Your task to perform on an android device: change alarm snooze length Image 0: 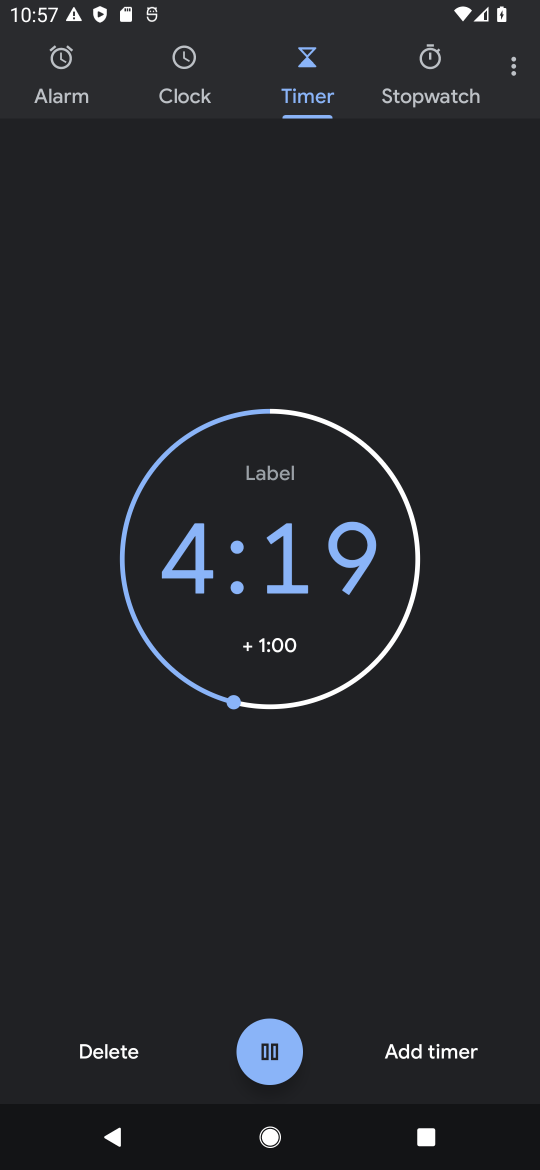
Step 0: press home button
Your task to perform on an android device: change alarm snooze length Image 1: 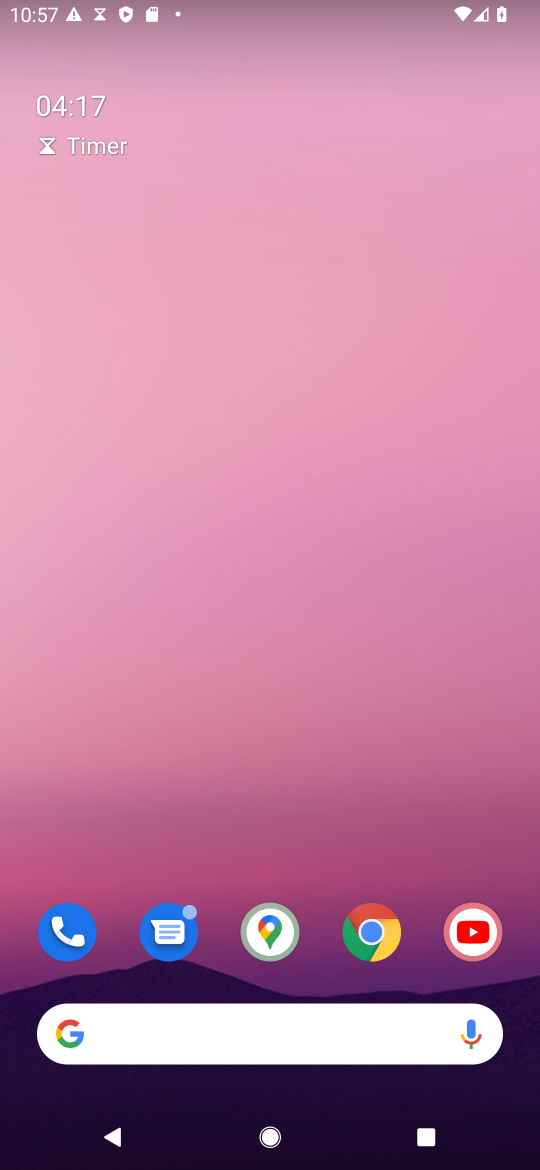
Step 1: drag from (254, 996) to (332, 7)
Your task to perform on an android device: change alarm snooze length Image 2: 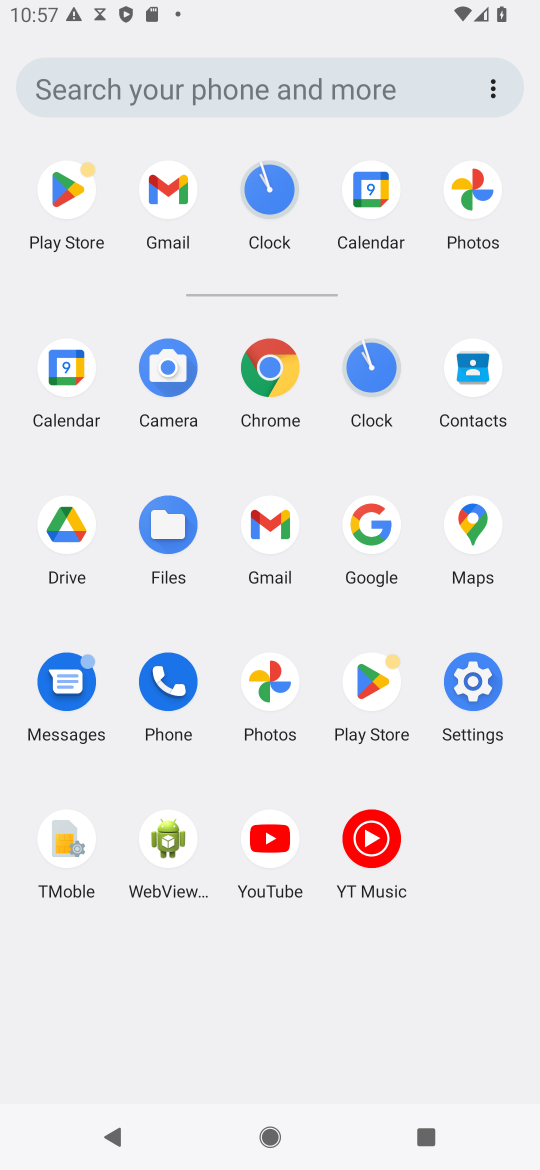
Step 2: click (366, 373)
Your task to perform on an android device: change alarm snooze length Image 3: 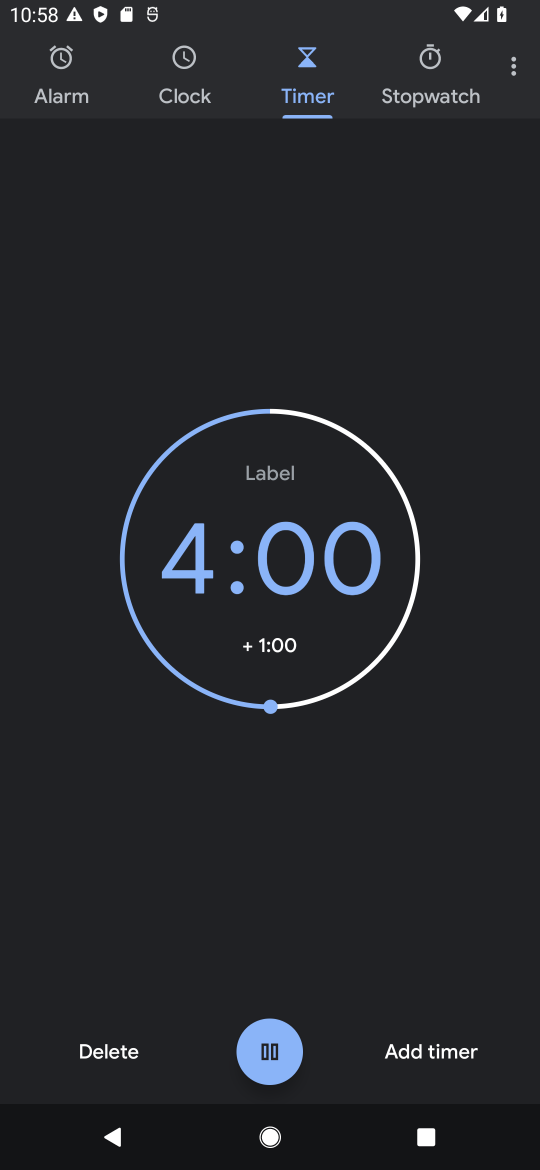
Step 3: click (505, 77)
Your task to perform on an android device: change alarm snooze length Image 4: 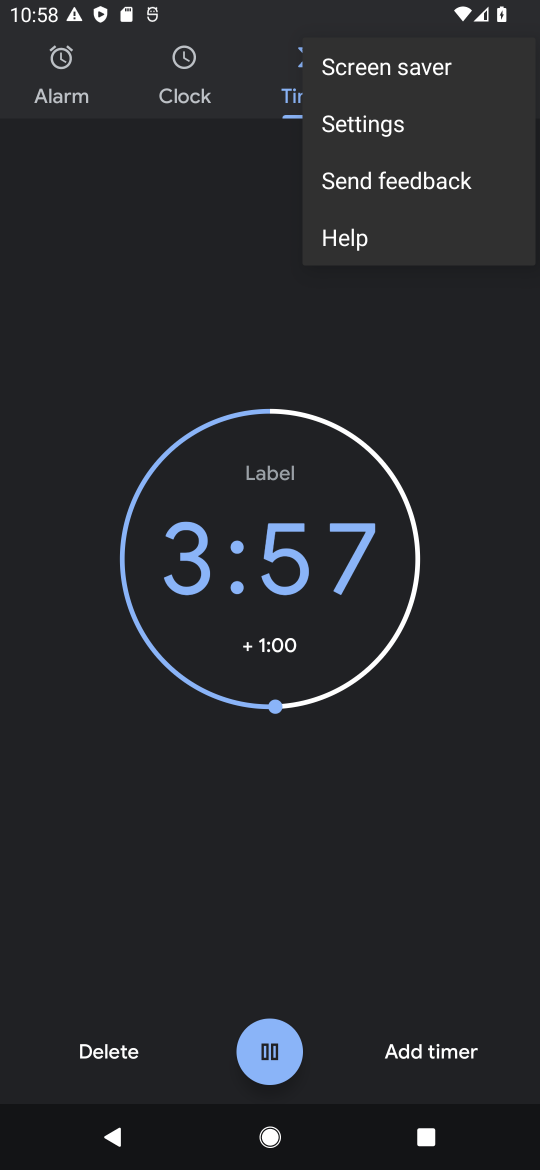
Step 4: click (352, 124)
Your task to perform on an android device: change alarm snooze length Image 5: 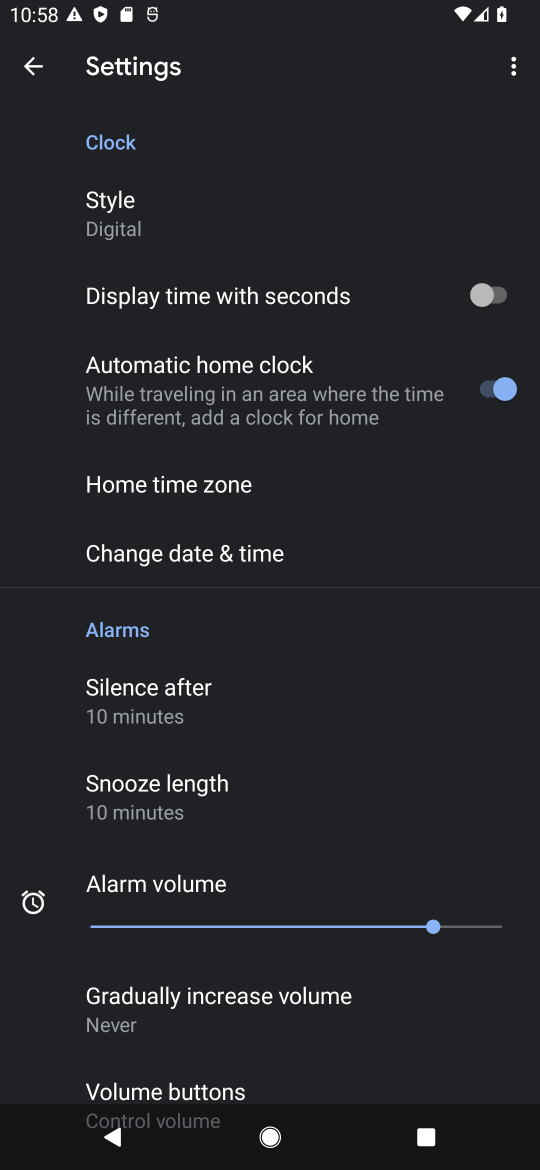
Step 5: drag from (211, 706) to (216, 349)
Your task to perform on an android device: change alarm snooze length Image 6: 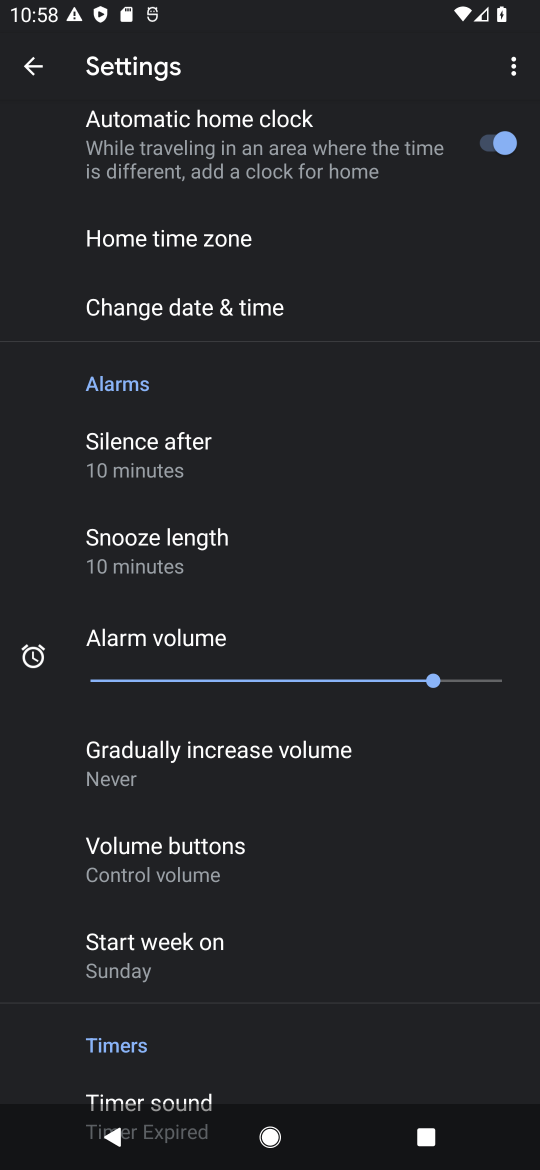
Step 6: drag from (201, 955) to (210, 780)
Your task to perform on an android device: change alarm snooze length Image 7: 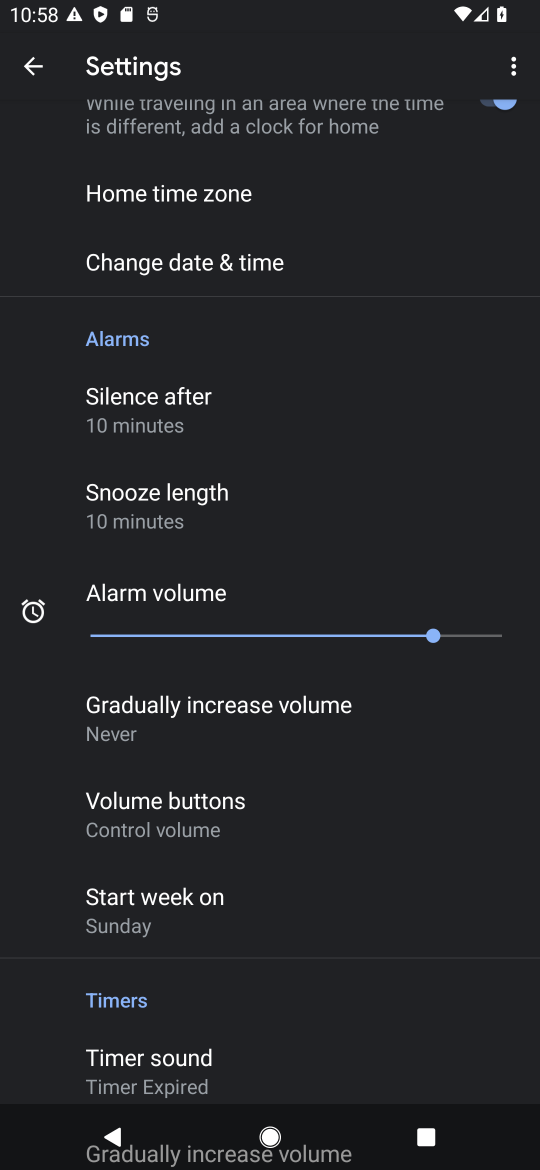
Step 7: click (154, 527)
Your task to perform on an android device: change alarm snooze length Image 8: 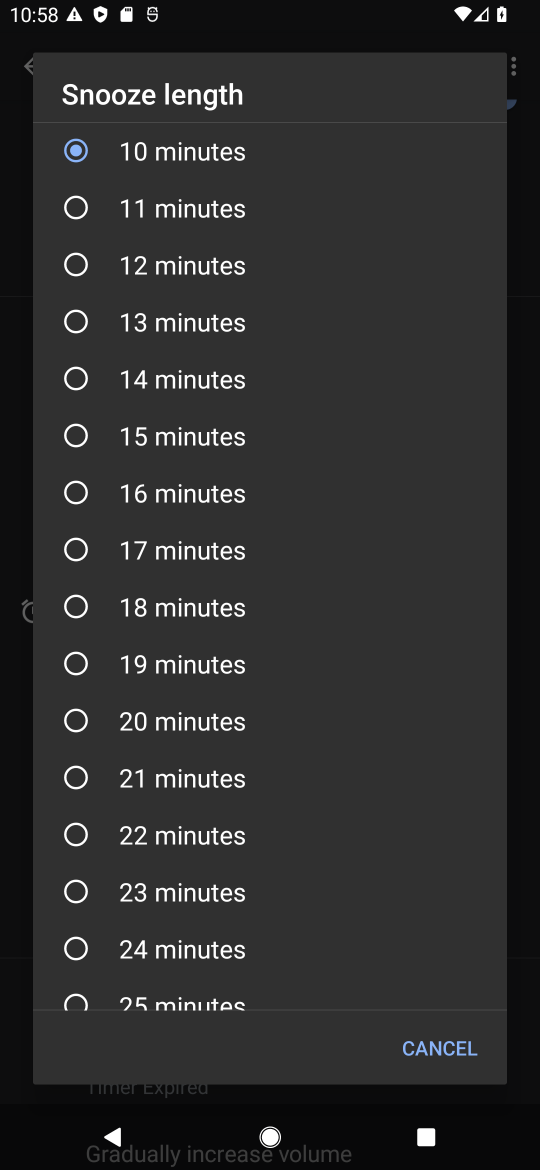
Step 8: click (109, 432)
Your task to perform on an android device: change alarm snooze length Image 9: 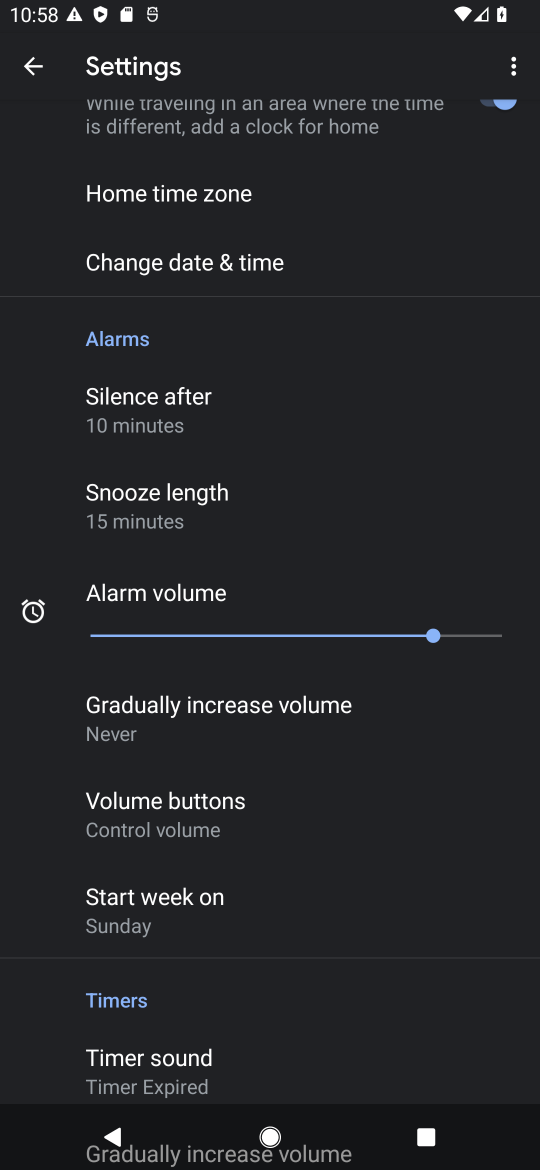
Step 9: task complete